Your task to perform on an android device: turn vacation reply on in the gmail app Image 0: 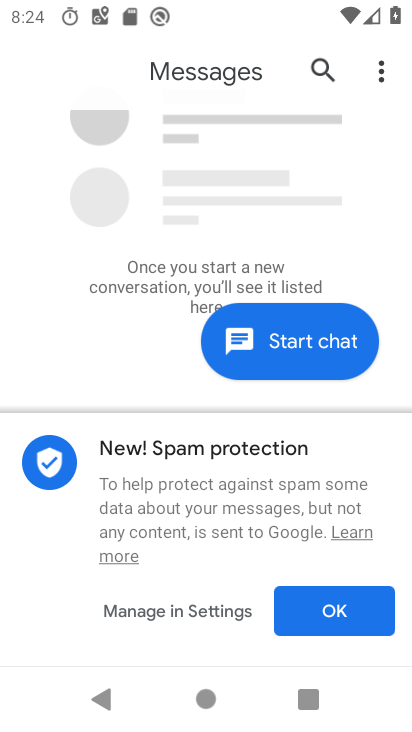
Step 0: press home button
Your task to perform on an android device: turn vacation reply on in the gmail app Image 1: 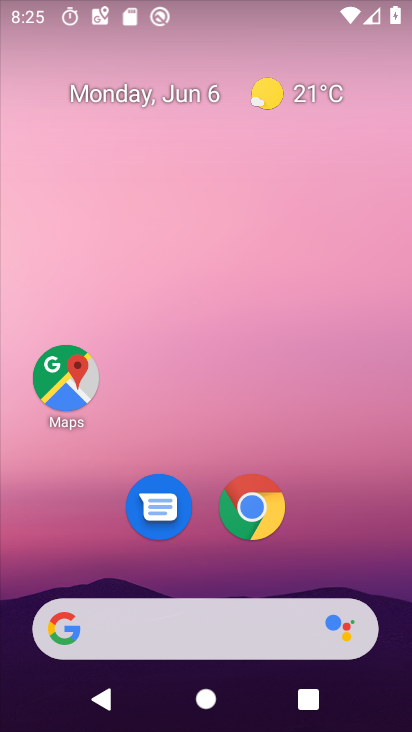
Step 1: drag from (339, 532) to (363, 28)
Your task to perform on an android device: turn vacation reply on in the gmail app Image 2: 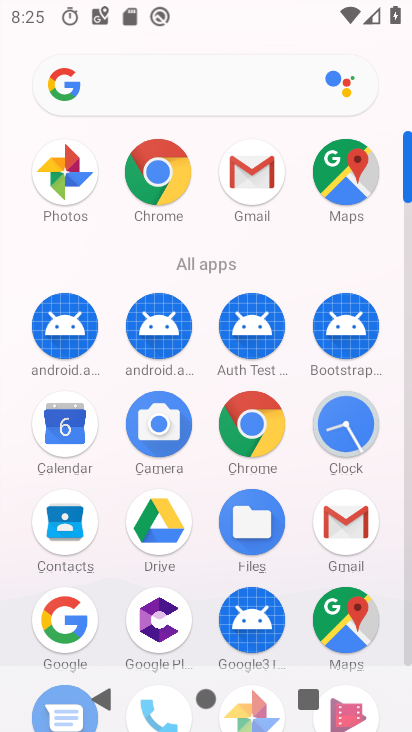
Step 2: click (243, 158)
Your task to perform on an android device: turn vacation reply on in the gmail app Image 3: 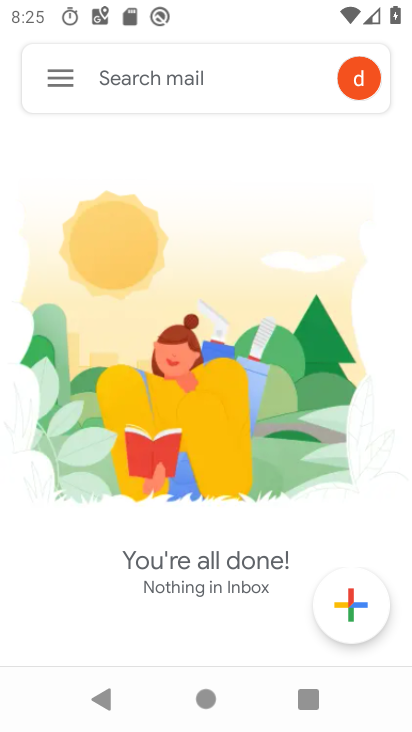
Step 3: click (67, 81)
Your task to perform on an android device: turn vacation reply on in the gmail app Image 4: 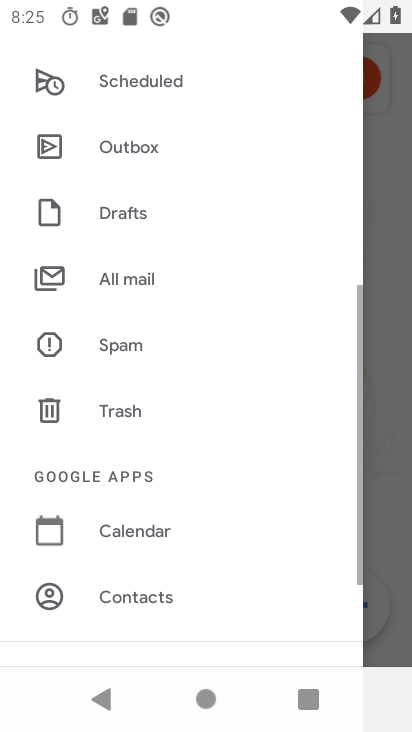
Step 4: drag from (180, 581) to (259, 162)
Your task to perform on an android device: turn vacation reply on in the gmail app Image 5: 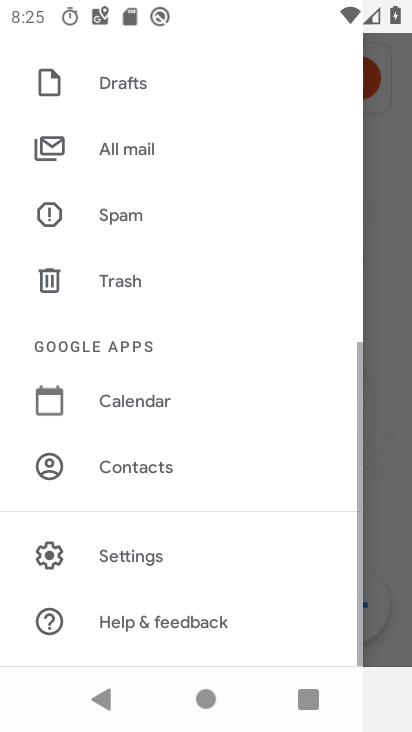
Step 5: click (123, 547)
Your task to perform on an android device: turn vacation reply on in the gmail app Image 6: 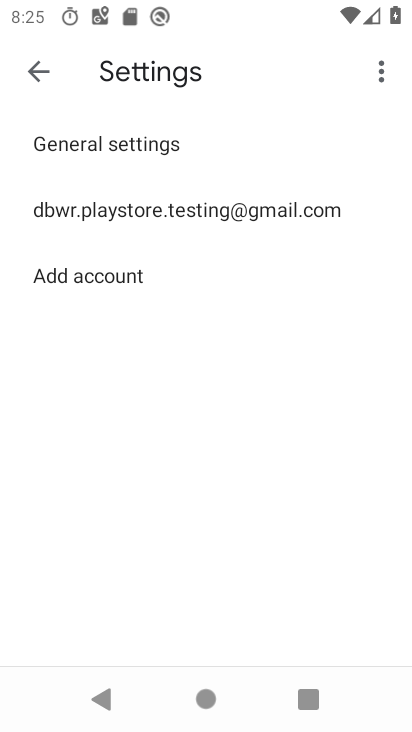
Step 6: click (233, 217)
Your task to perform on an android device: turn vacation reply on in the gmail app Image 7: 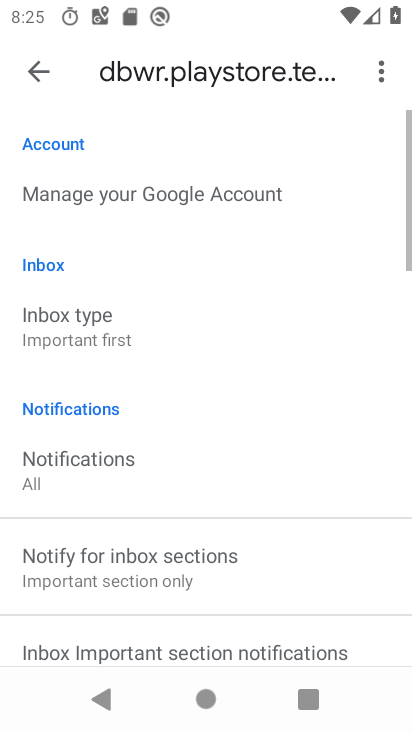
Step 7: drag from (160, 614) to (307, 122)
Your task to perform on an android device: turn vacation reply on in the gmail app Image 8: 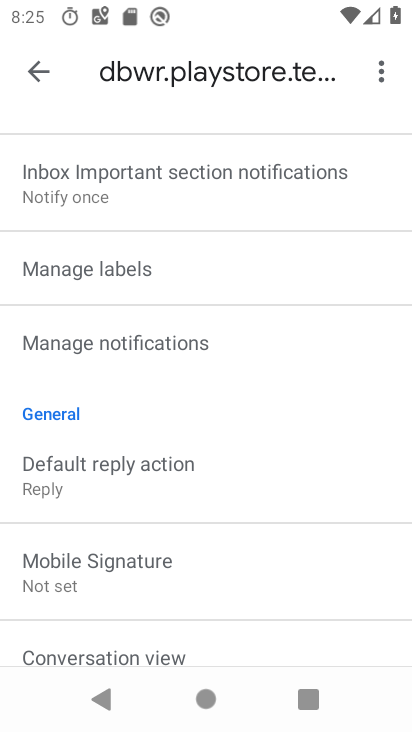
Step 8: drag from (148, 560) to (350, 253)
Your task to perform on an android device: turn vacation reply on in the gmail app Image 9: 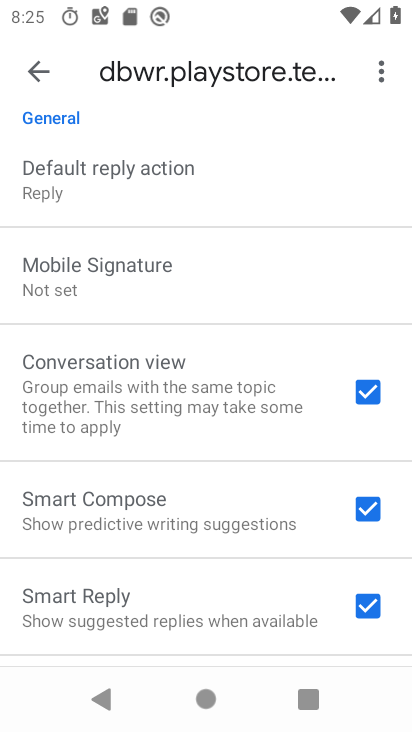
Step 9: drag from (242, 512) to (316, 121)
Your task to perform on an android device: turn vacation reply on in the gmail app Image 10: 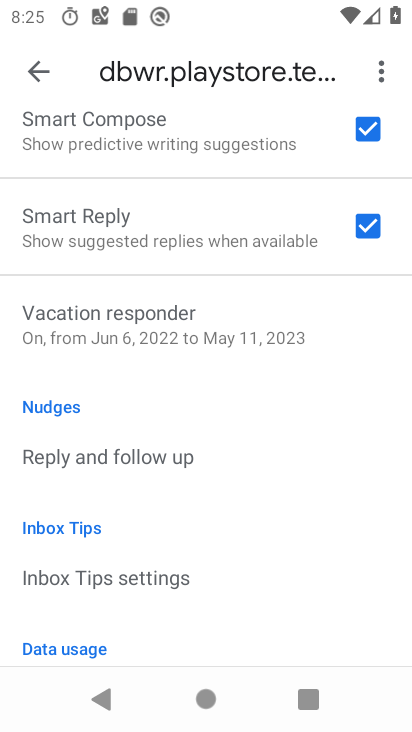
Step 10: click (161, 308)
Your task to perform on an android device: turn vacation reply on in the gmail app Image 11: 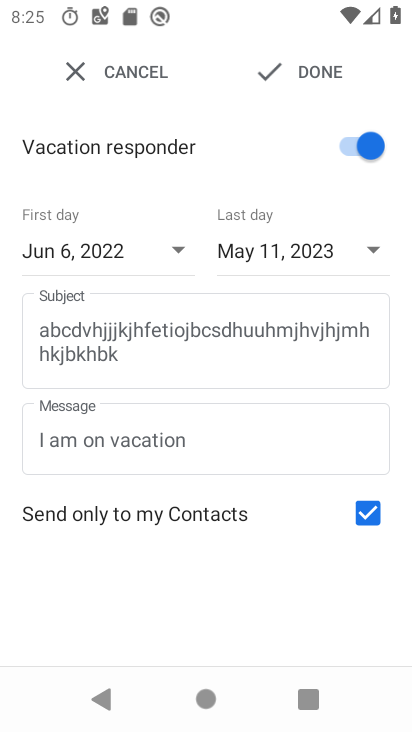
Step 11: click (179, 254)
Your task to perform on an android device: turn vacation reply on in the gmail app Image 12: 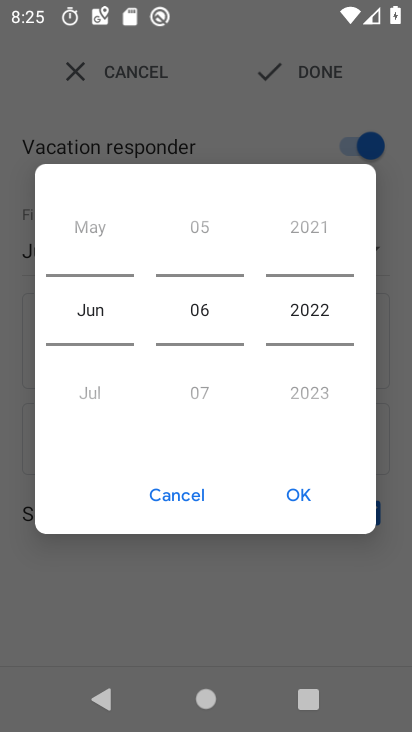
Step 12: drag from (181, 375) to (226, 239)
Your task to perform on an android device: turn vacation reply on in the gmail app Image 13: 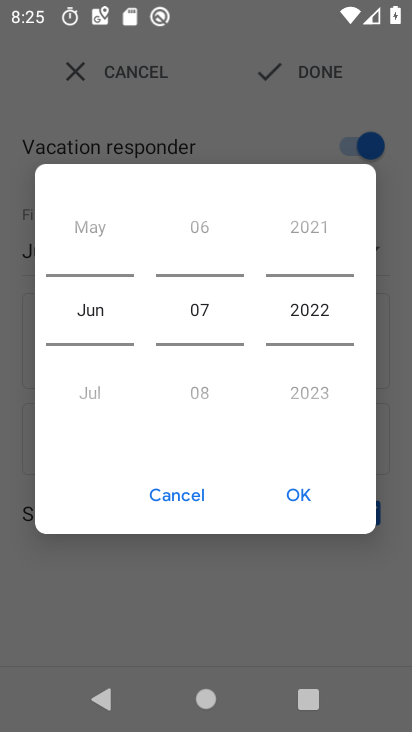
Step 13: click (313, 506)
Your task to perform on an android device: turn vacation reply on in the gmail app Image 14: 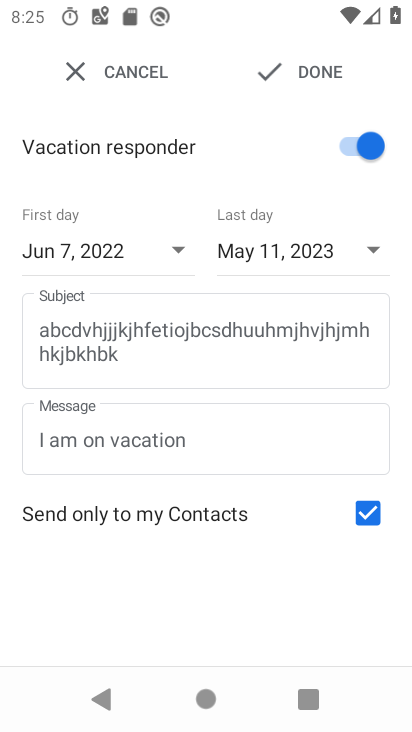
Step 14: click (305, 55)
Your task to perform on an android device: turn vacation reply on in the gmail app Image 15: 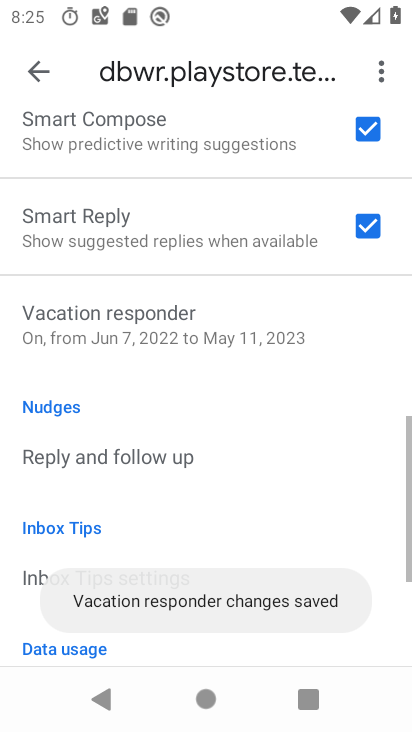
Step 15: task complete